Your task to perform on an android device: turn on showing notifications on the lock screen Image 0: 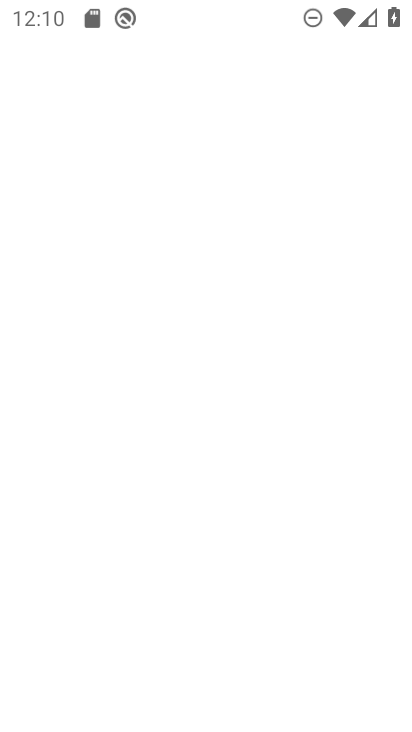
Step 0: press back button
Your task to perform on an android device: turn on showing notifications on the lock screen Image 1: 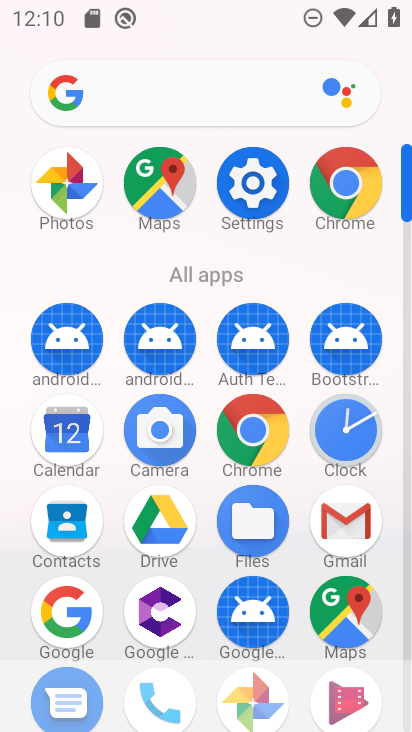
Step 1: click (249, 177)
Your task to perform on an android device: turn on showing notifications on the lock screen Image 2: 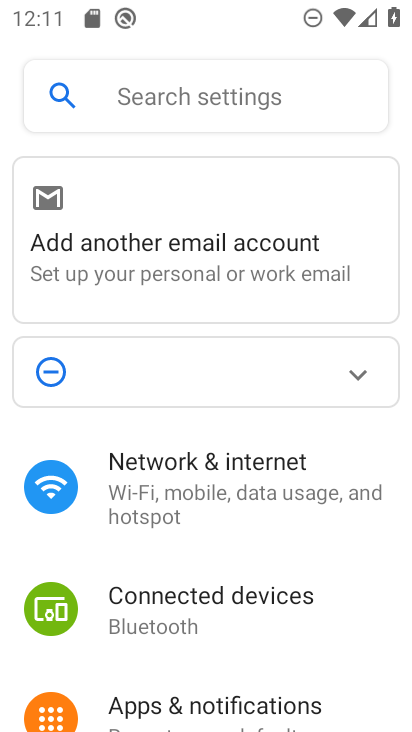
Step 2: click (181, 699)
Your task to perform on an android device: turn on showing notifications on the lock screen Image 3: 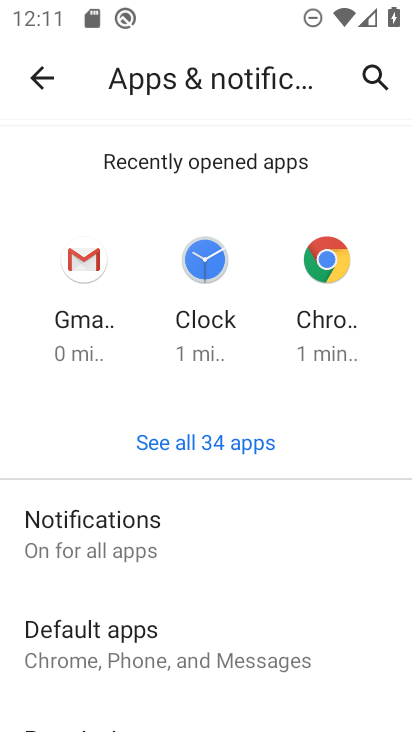
Step 3: click (140, 544)
Your task to perform on an android device: turn on showing notifications on the lock screen Image 4: 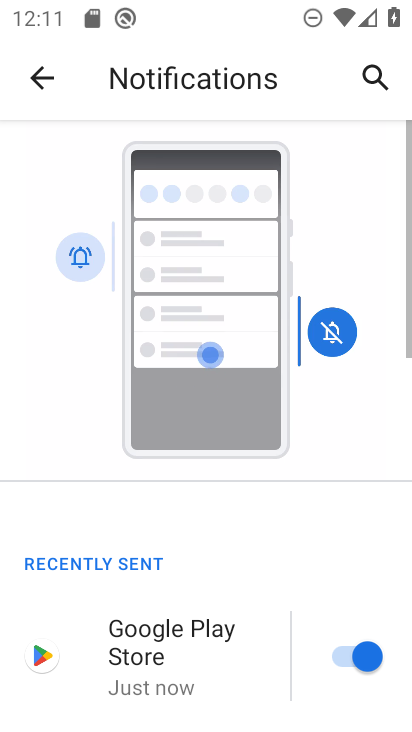
Step 4: drag from (152, 656) to (271, 91)
Your task to perform on an android device: turn on showing notifications on the lock screen Image 5: 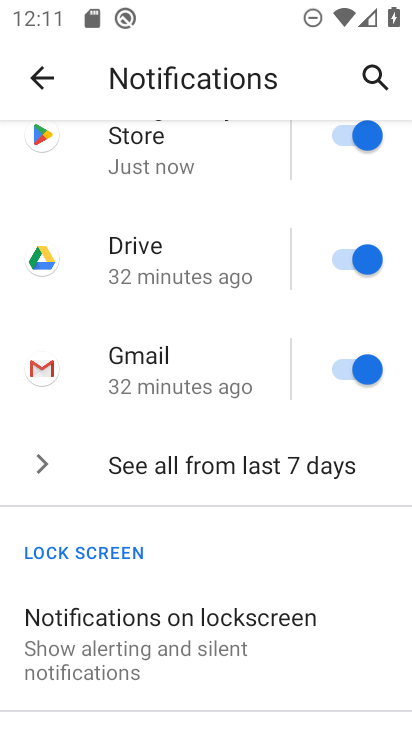
Step 5: click (91, 659)
Your task to perform on an android device: turn on showing notifications on the lock screen Image 6: 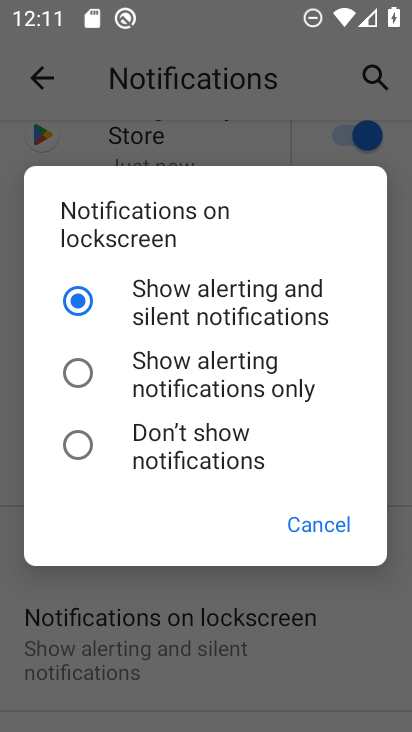
Step 6: click (69, 294)
Your task to perform on an android device: turn on showing notifications on the lock screen Image 7: 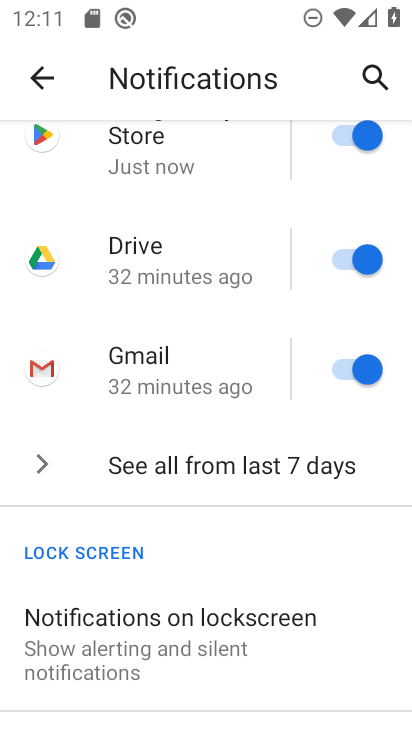
Step 7: task complete